Your task to perform on an android device: open a new tab in the chrome app Image 0: 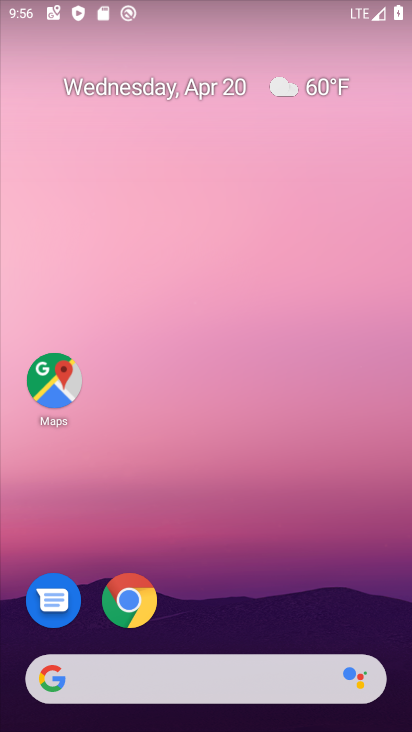
Step 0: click (111, 598)
Your task to perform on an android device: open a new tab in the chrome app Image 1: 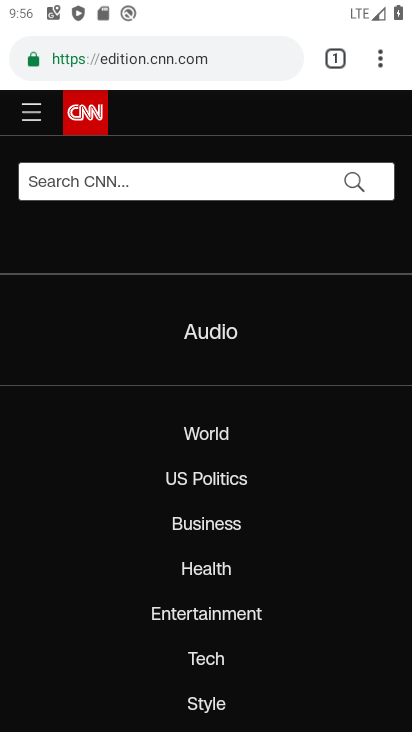
Step 1: click (346, 41)
Your task to perform on an android device: open a new tab in the chrome app Image 2: 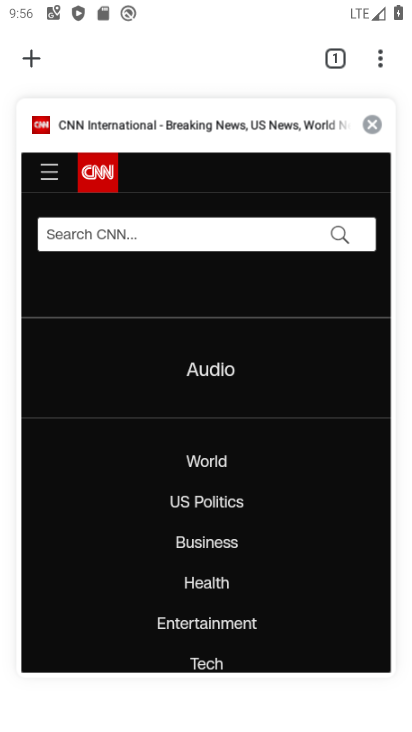
Step 2: click (40, 59)
Your task to perform on an android device: open a new tab in the chrome app Image 3: 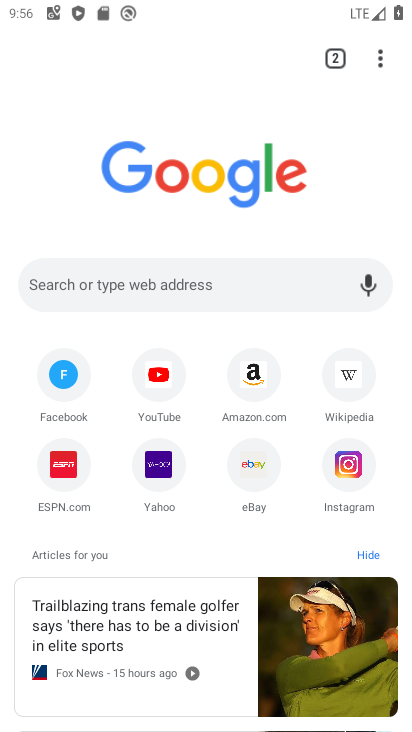
Step 3: task complete